Your task to perform on an android device: turn off airplane mode Image 0: 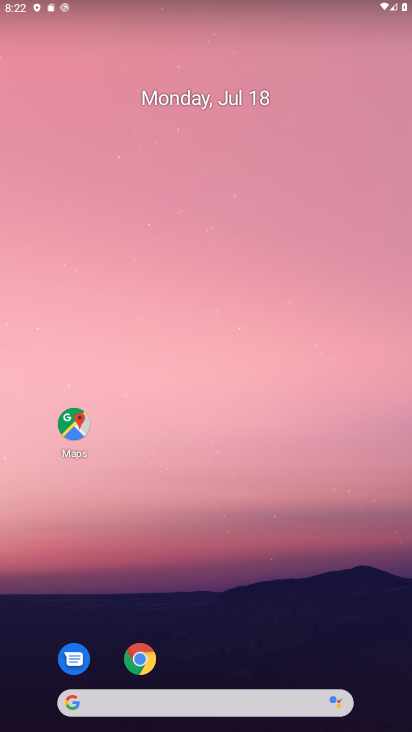
Step 0: click (374, 57)
Your task to perform on an android device: turn off airplane mode Image 1: 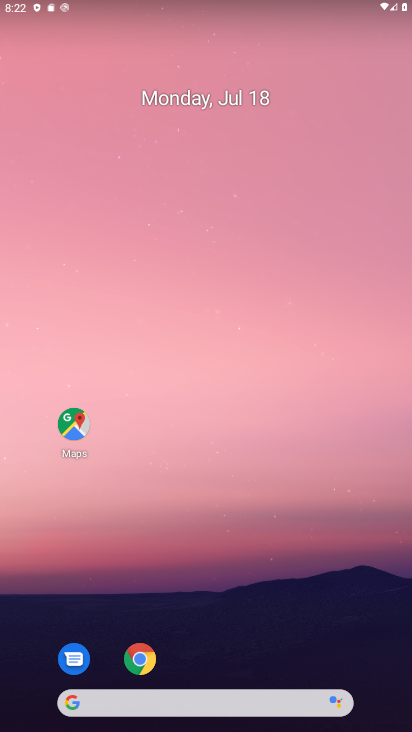
Step 1: drag from (208, 544) to (162, 207)
Your task to perform on an android device: turn off airplane mode Image 2: 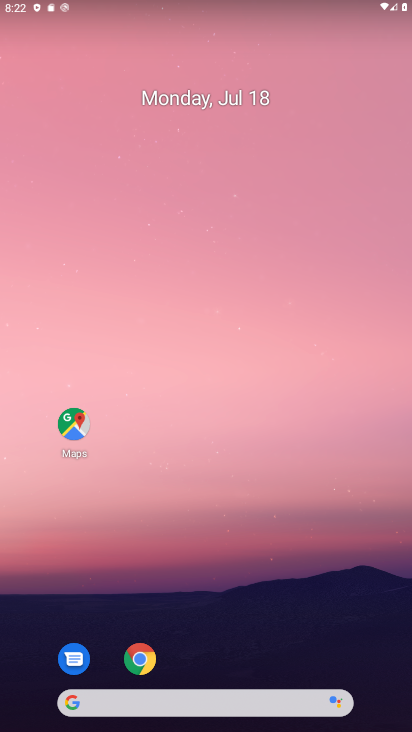
Step 2: drag from (211, 318) to (201, 38)
Your task to perform on an android device: turn off airplane mode Image 3: 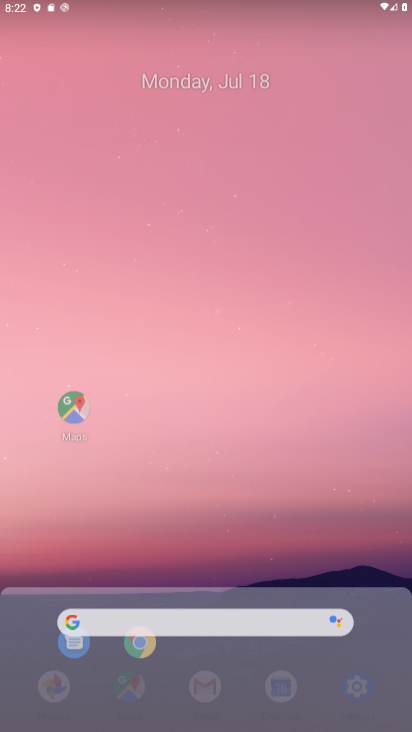
Step 3: drag from (198, 493) to (193, 79)
Your task to perform on an android device: turn off airplane mode Image 4: 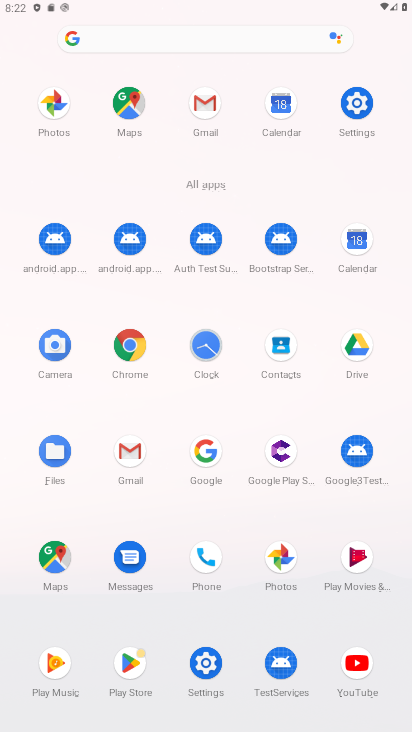
Step 4: drag from (244, 489) to (234, 100)
Your task to perform on an android device: turn off airplane mode Image 5: 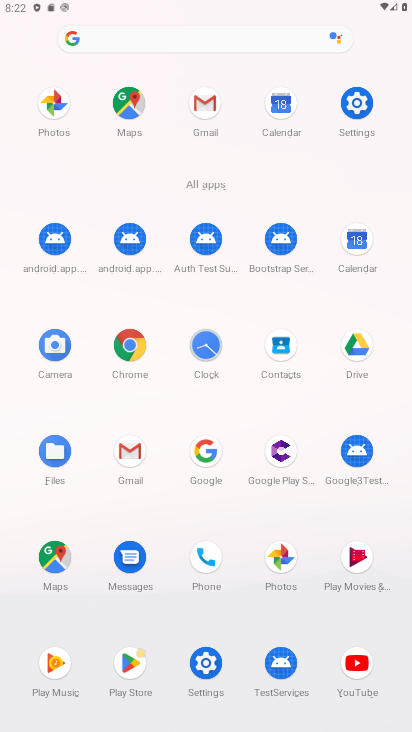
Step 5: click (362, 116)
Your task to perform on an android device: turn off airplane mode Image 6: 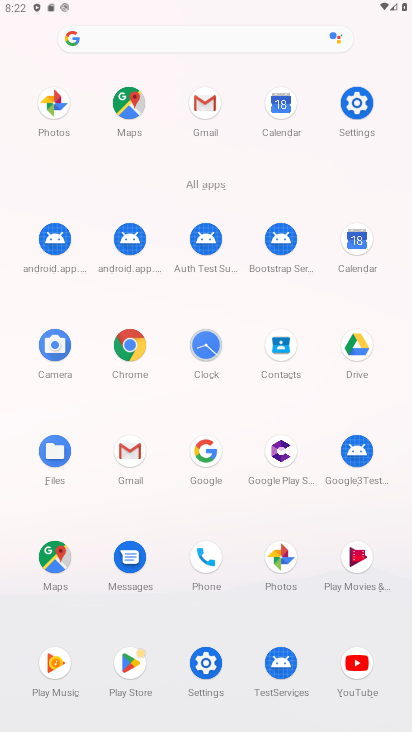
Step 6: click (356, 85)
Your task to perform on an android device: turn off airplane mode Image 7: 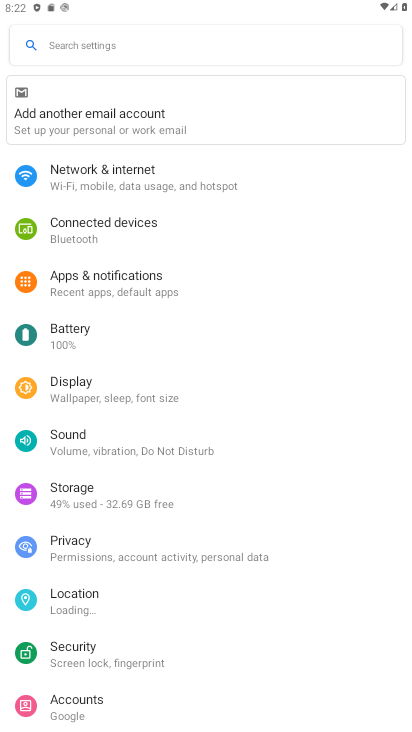
Step 7: click (99, 176)
Your task to perform on an android device: turn off airplane mode Image 8: 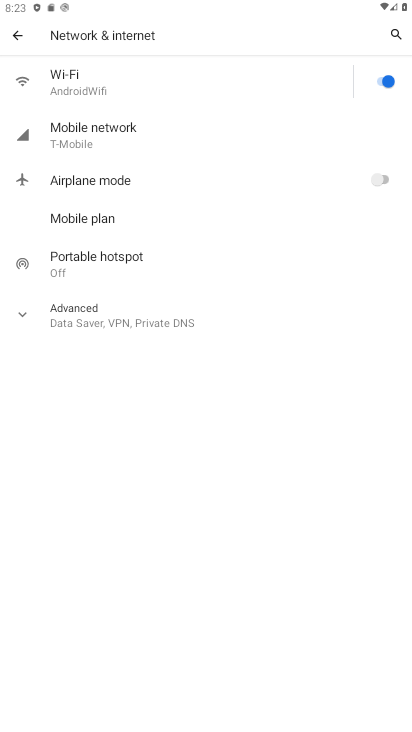
Step 8: task complete